Your task to perform on an android device: Search for Mexican restaurants on Maps Image 0: 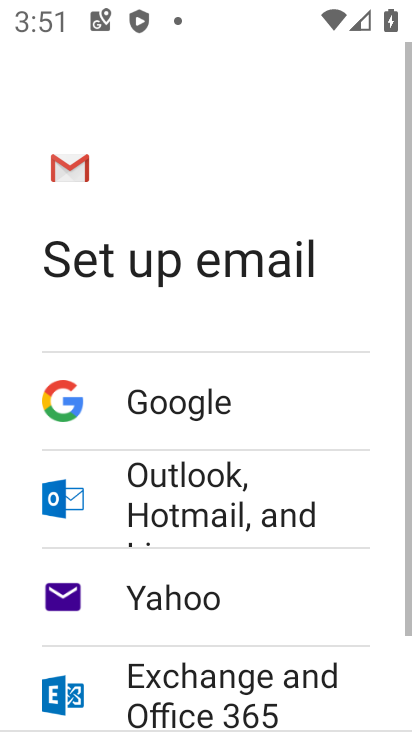
Step 0: press home button
Your task to perform on an android device: Search for Mexican restaurants on Maps Image 1: 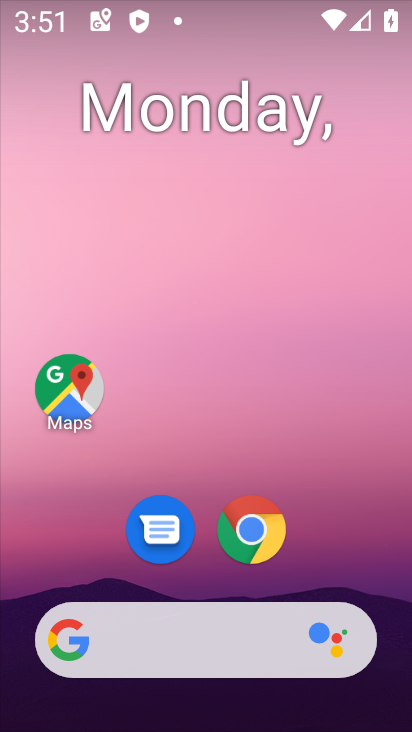
Step 1: drag from (201, 652) to (184, 161)
Your task to perform on an android device: Search for Mexican restaurants on Maps Image 2: 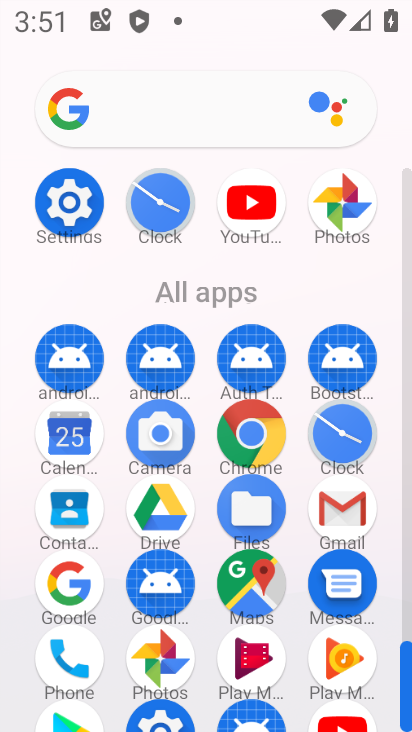
Step 2: click (262, 588)
Your task to perform on an android device: Search for Mexican restaurants on Maps Image 3: 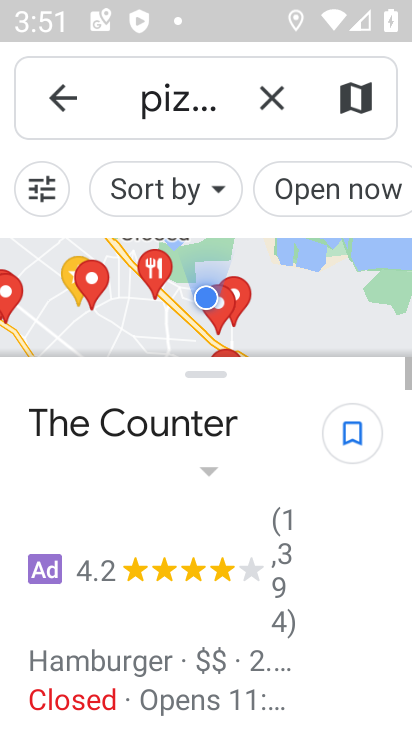
Step 3: click (267, 96)
Your task to perform on an android device: Search for Mexican restaurants on Maps Image 4: 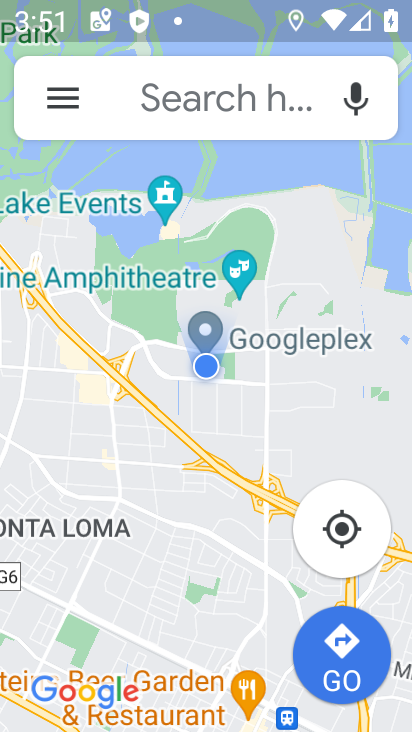
Step 4: click (222, 93)
Your task to perform on an android device: Search for Mexican restaurants on Maps Image 5: 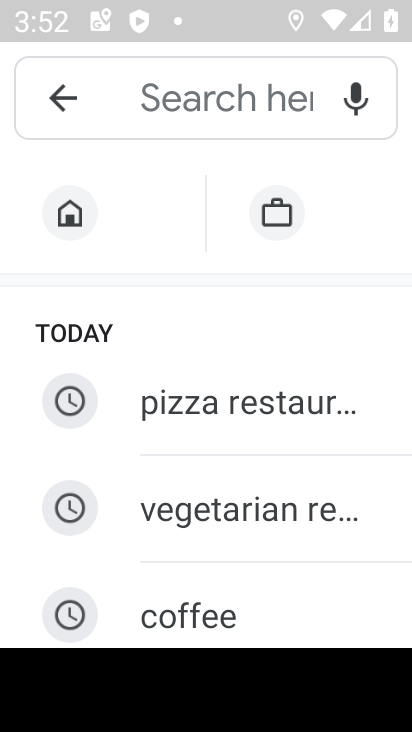
Step 5: type "Mexican restaurants"
Your task to perform on an android device: Search for Mexican restaurants on Maps Image 6: 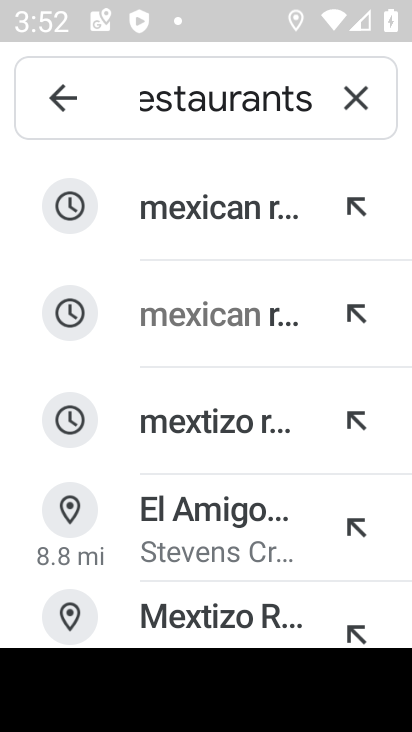
Step 6: click (197, 205)
Your task to perform on an android device: Search for Mexican restaurants on Maps Image 7: 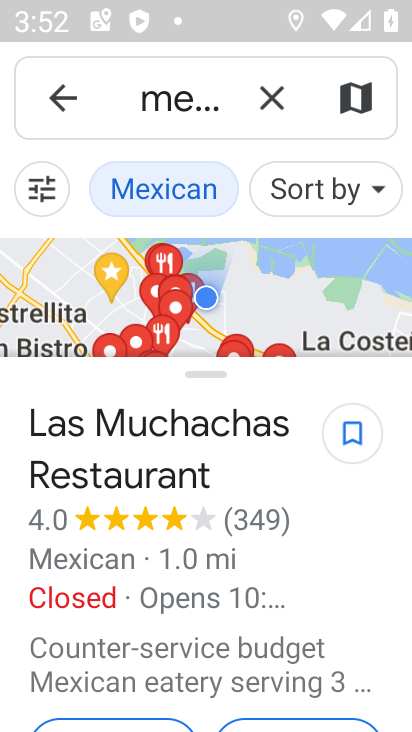
Step 7: task complete